Your task to perform on an android device: check storage Image 0: 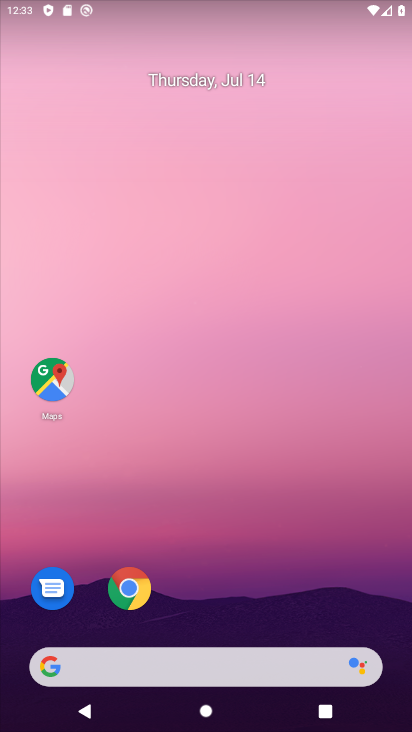
Step 0: drag from (203, 505) to (208, 317)
Your task to perform on an android device: check storage Image 1: 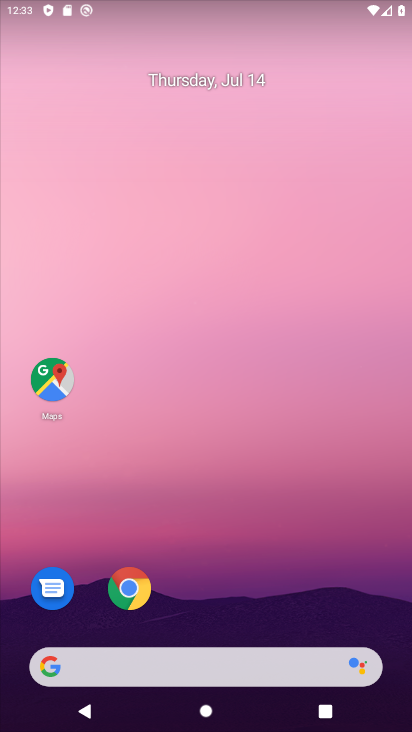
Step 1: drag from (193, 571) to (197, 209)
Your task to perform on an android device: check storage Image 2: 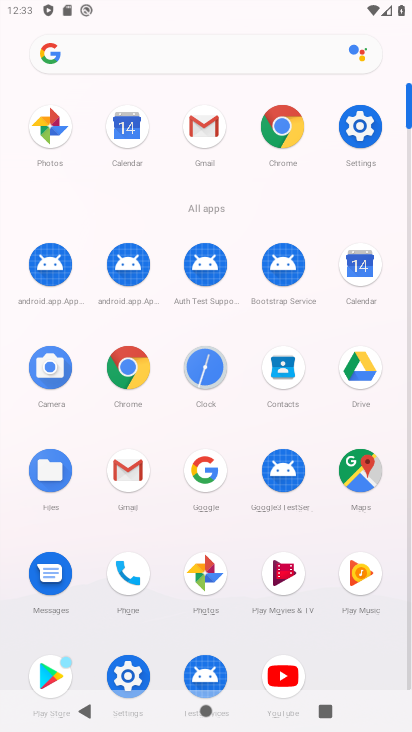
Step 2: click (354, 123)
Your task to perform on an android device: check storage Image 3: 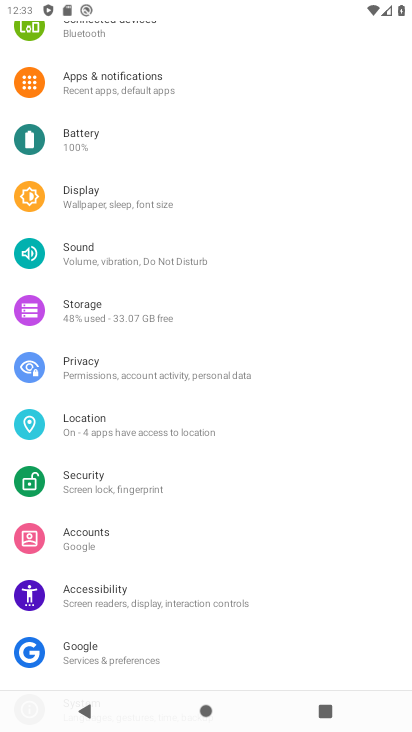
Step 3: click (126, 308)
Your task to perform on an android device: check storage Image 4: 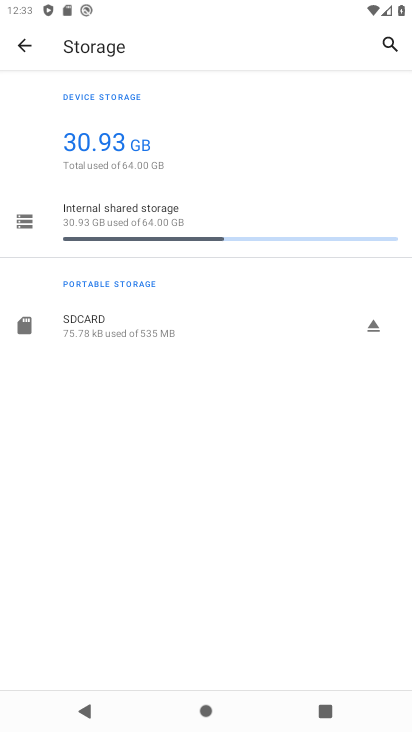
Step 4: task complete